Your task to perform on an android device: What's on the menu at McDonalds? Image 0: 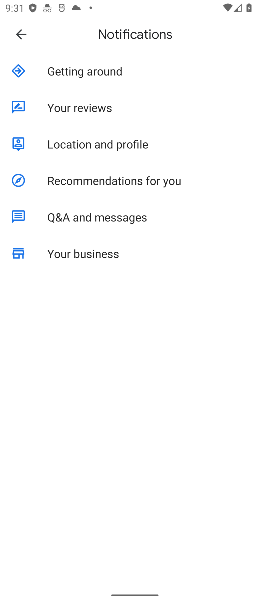
Step 0: press home button
Your task to perform on an android device: What's on the menu at McDonalds? Image 1: 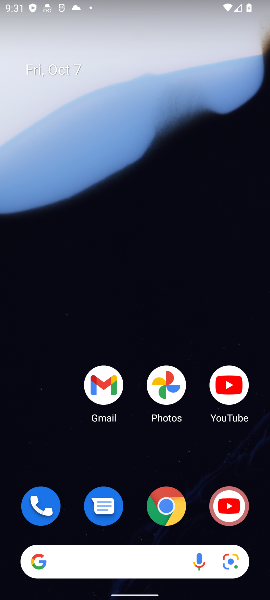
Step 1: click (155, 501)
Your task to perform on an android device: What's on the menu at McDonalds? Image 2: 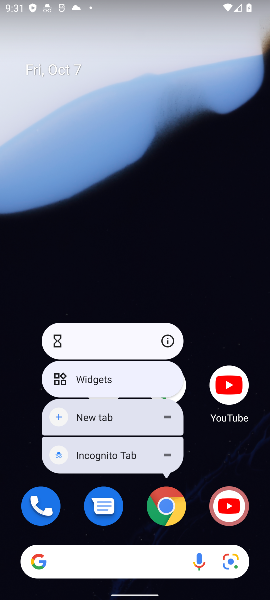
Step 2: click (164, 502)
Your task to perform on an android device: What's on the menu at McDonalds? Image 3: 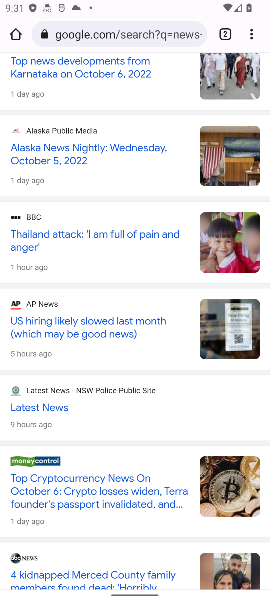
Step 3: click (140, 35)
Your task to perform on an android device: What's on the menu at McDonalds? Image 4: 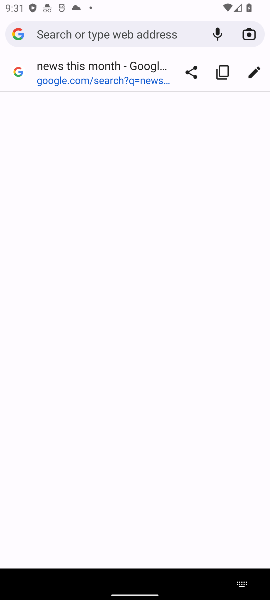
Step 4: type "menu at McDonalds"
Your task to perform on an android device: What's on the menu at McDonalds? Image 5: 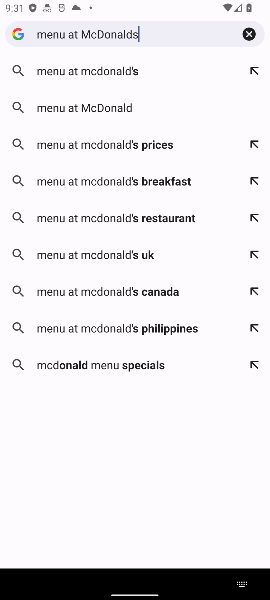
Step 5: press enter
Your task to perform on an android device: What's on the menu at McDonalds? Image 6: 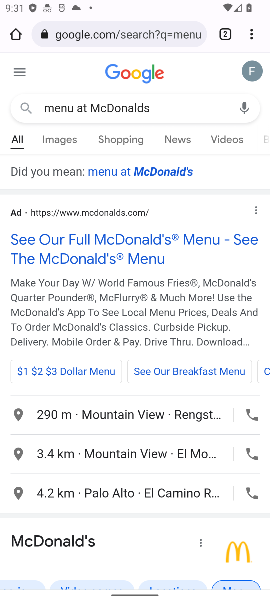
Step 6: drag from (85, 458) to (186, 213)
Your task to perform on an android device: What's on the menu at McDonalds? Image 7: 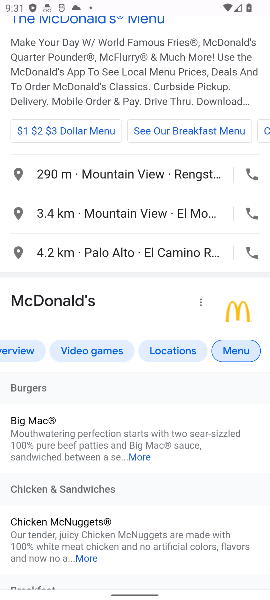
Step 7: drag from (81, 502) to (185, 131)
Your task to perform on an android device: What's on the menu at McDonalds? Image 8: 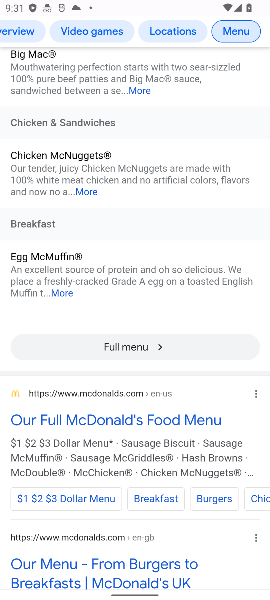
Step 8: click (139, 415)
Your task to perform on an android device: What's on the menu at McDonalds? Image 9: 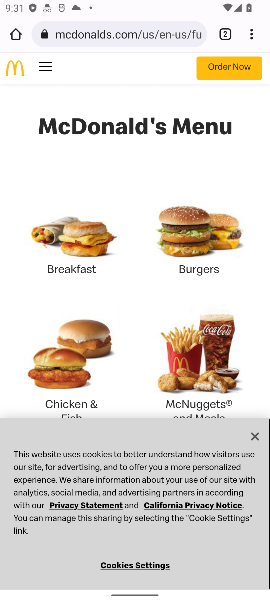
Step 9: click (254, 430)
Your task to perform on an android device: What's on the menu at McDonalds? Image 10: 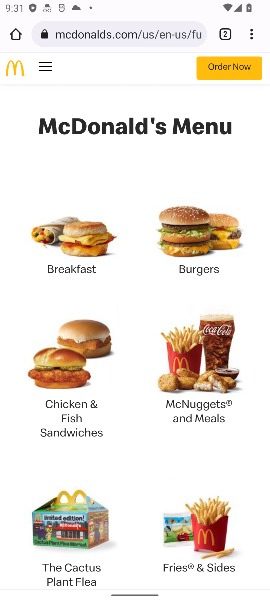
Step 10: task complete